Your task to perform on an android device: Go to Android settings Image 0: 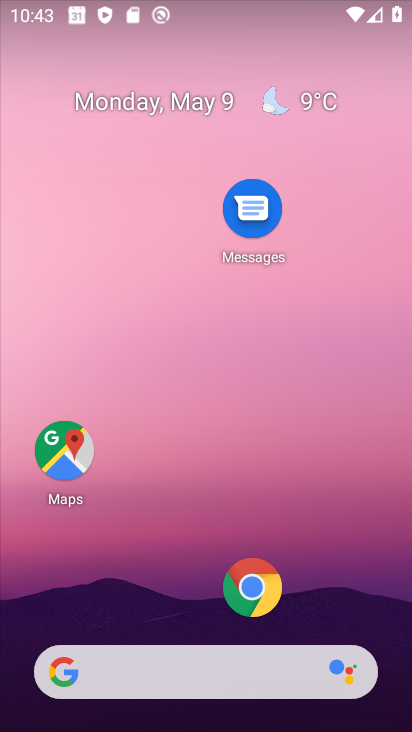
Step 0: drag from (153, 606) to (197, 306)
Your task to perform on an android device: Go to Android settings Image 1: 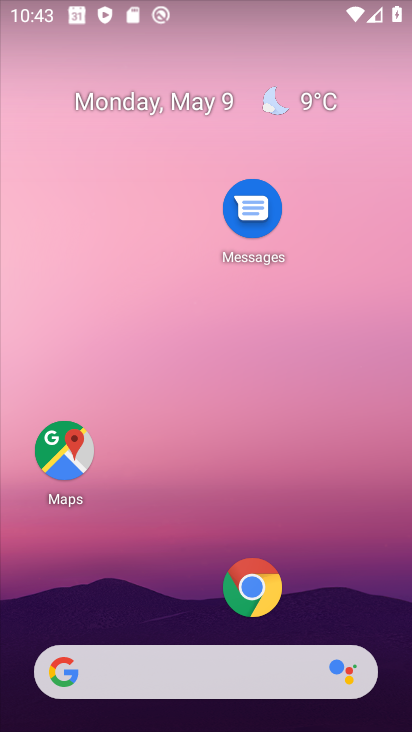
Step 1: drag from (216, 619) to (200, 168)
Your task to perform on an android device: Go to Android settings Image 2: 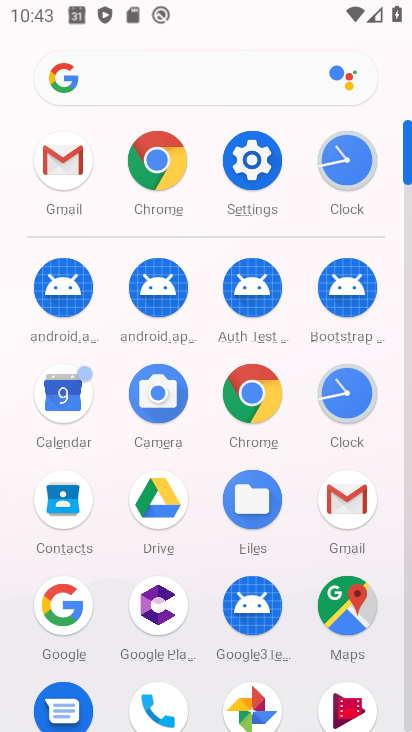
Step 2: click (254, 139)
Your task to perform on an android device: Go to Android settings Image 3: 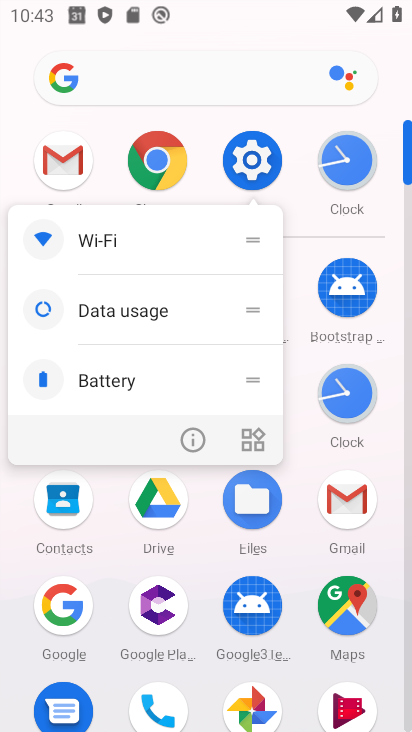
Step 3: click (183, 446)
Your task to perform on an android device: Go to Android settings Image 4: 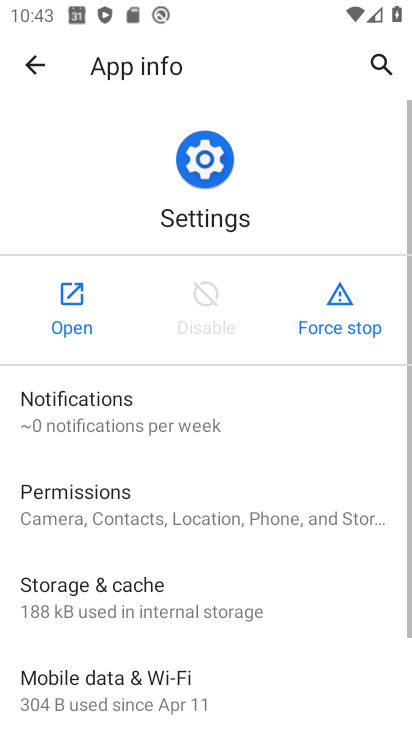
Step 4: click (105, 282)
Your task to perform on an android device: Go to Android settings Image 5: 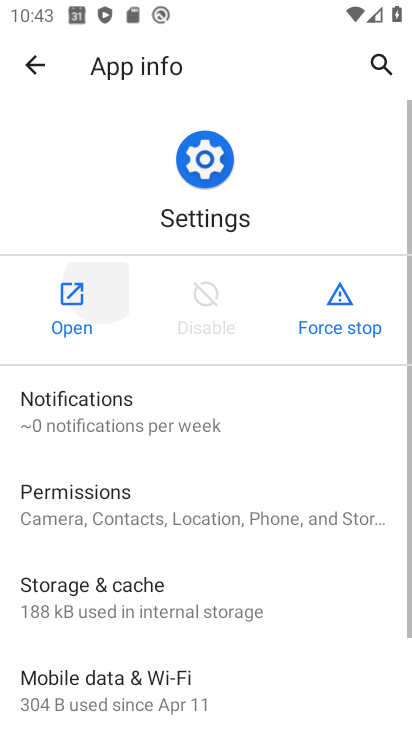
Step 5: click (30, 319)
Your task to perform on an android device: Go to Android settings Image 6: 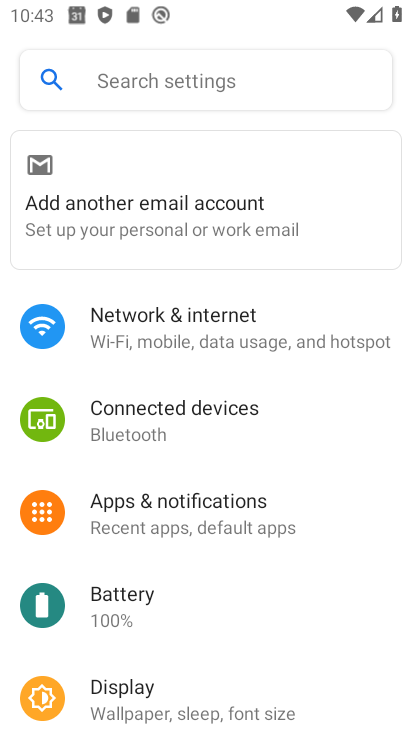
Step 6: drag from (179, 649) to (225, 156)
Your task to perform on an android device: Go to Android settings Image 7: 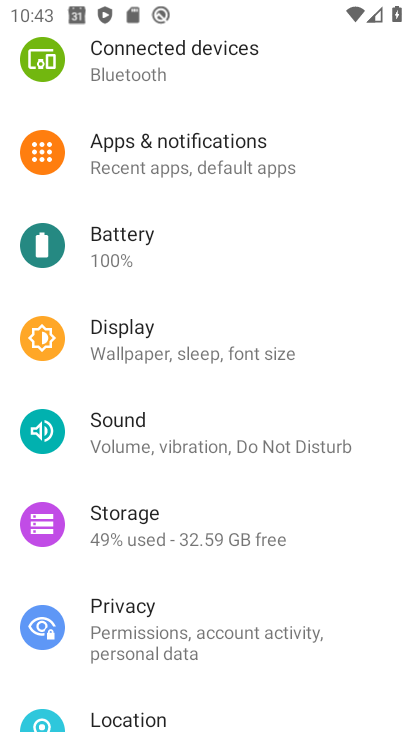
Step 7: drag from (222, 609) to (275, 158)
Your task to perform on an android device: Go to Android settings Image 8: 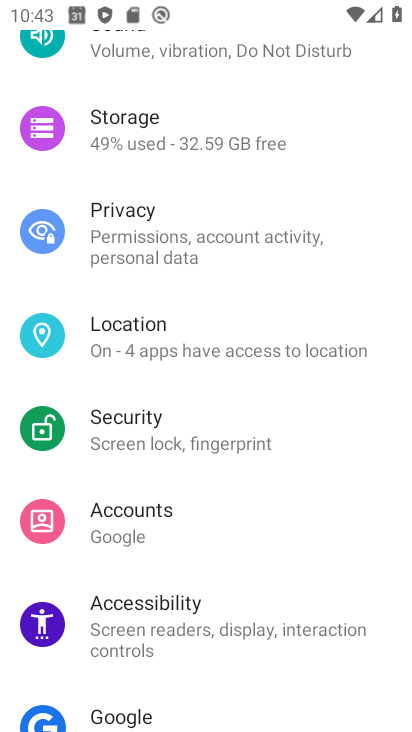
Step 8: drag from (196, 667) to (272, 160)
Your task to perform on an android device: Go to Android settings Image 9: 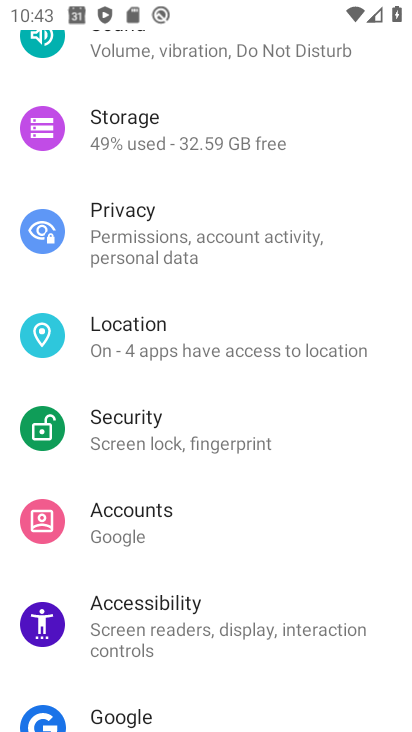
Step 9: drag from (170, 609) to (259, 75)
Your task to perform on an android device: Go to Android settings Image 10: 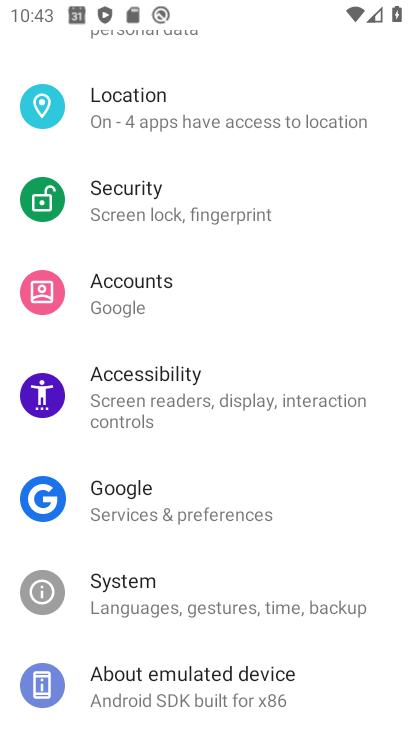
Step 10: drag from (174, 685) to (251, 204)
Your task to perform on an android device: Go to Android settings Image 11: 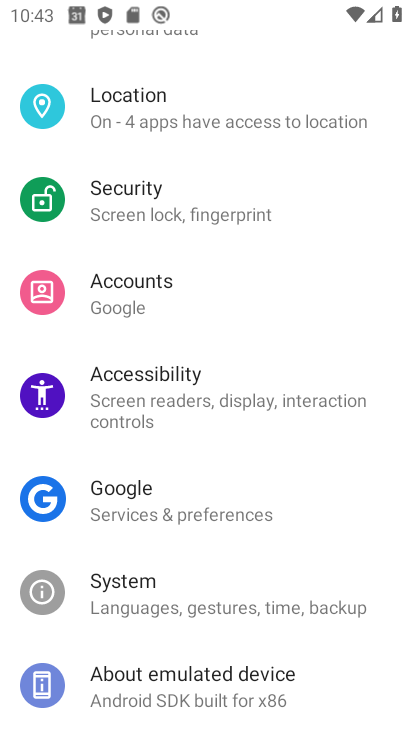
Step 11: drag from (188, 663) to (270, 131)
Your task to perform on an android device: Go to Android settings Image 12: 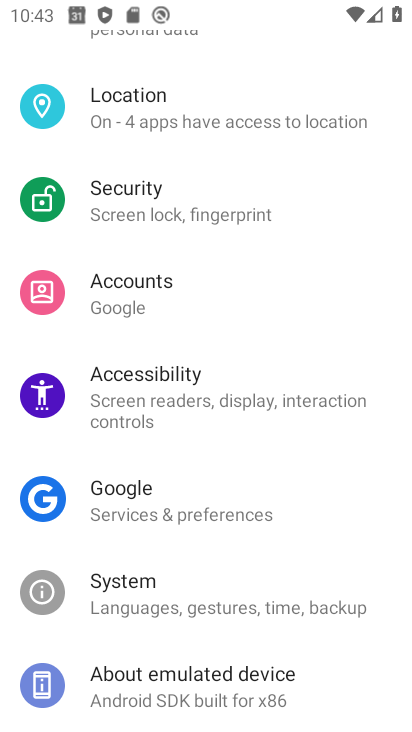
Step 12: drag from (202, 684) to (221, 183)
Your task to perform on an android device: Go to Android settings Image 13: 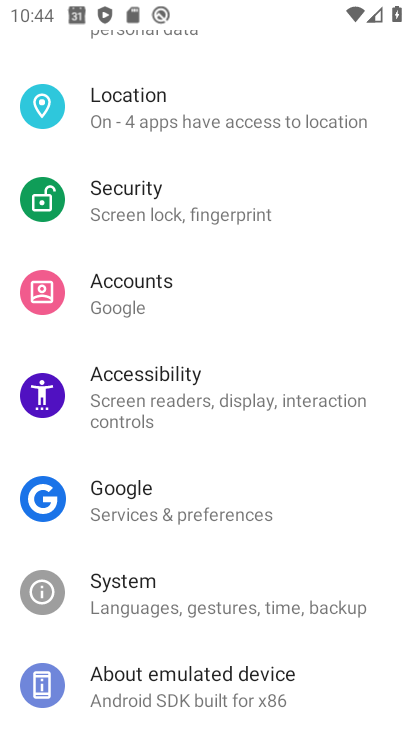
Step 13: drag from (219, 639) to (231, 203)
Your task to perform on an android device: Go to Android settings Image 14: 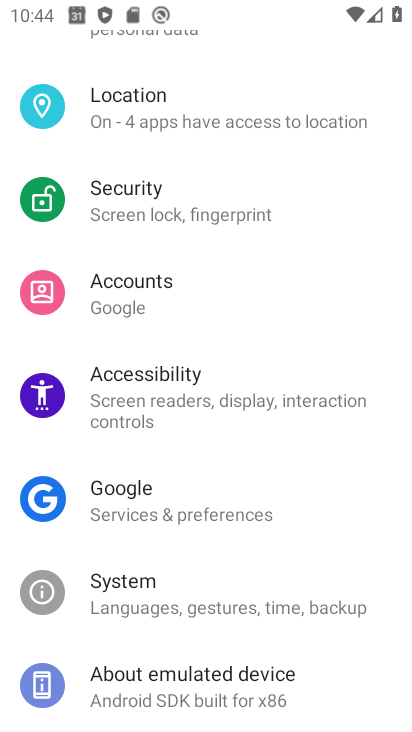
Step 14: click (198, 685)
Your task to perform on an android device: Go to Android settings Image 15: 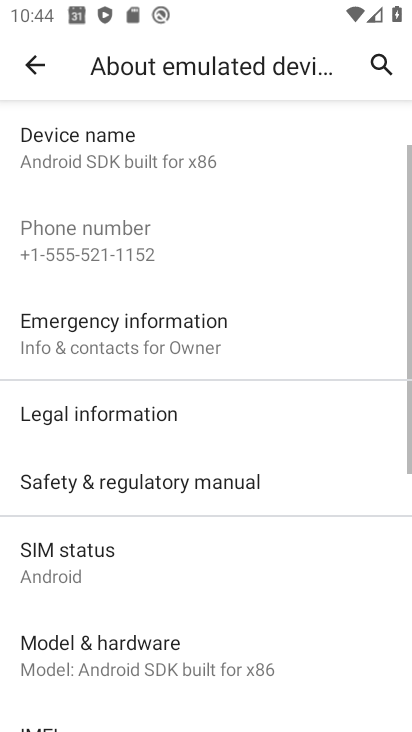
Step 15: drag from (196, 657) to (225, 186)
Your task to perform on an android device: Go to Android settings Image 16: 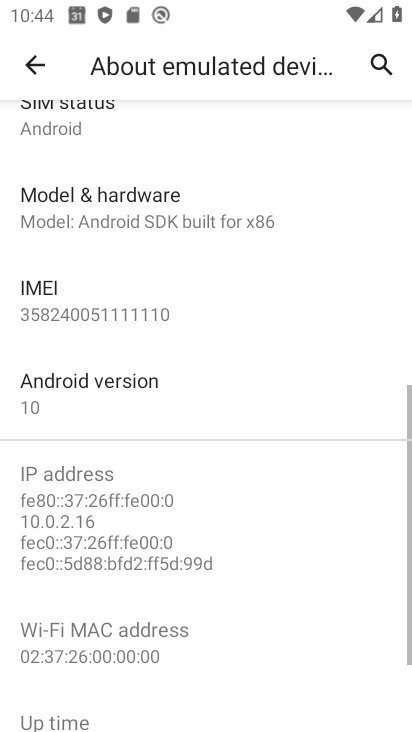
Step 16: click (127, 381)
Your task to perform on an android device: Go to Android settings Image 17: 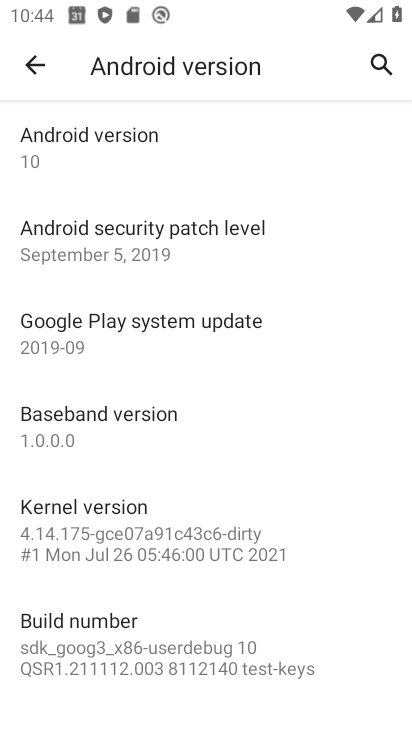
Step 17: task complete